Your task to perform on an android device: open a bookmark in the chrome app Image 0: 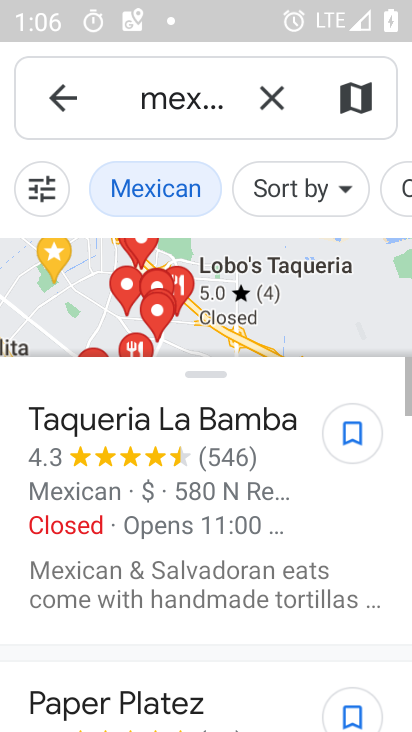
Step 0: press home button
Your task to perform on an android device: open a bookmark in the chrome app Image 1: 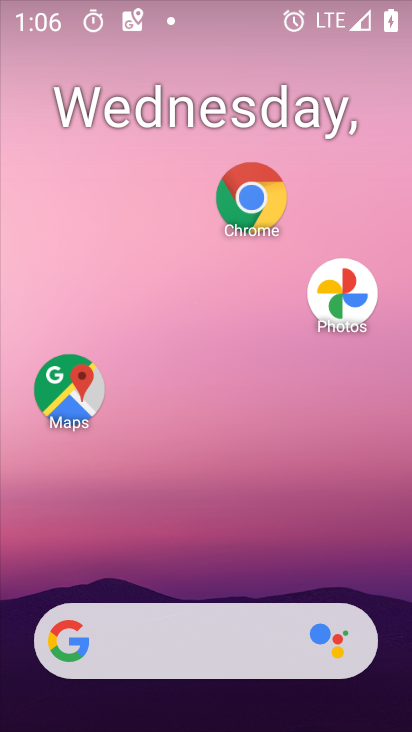
Step 1: drag from (233, 637) to (231, 147)
Your task to perform on an android device: open a bookmark in the chrome app Image 2: 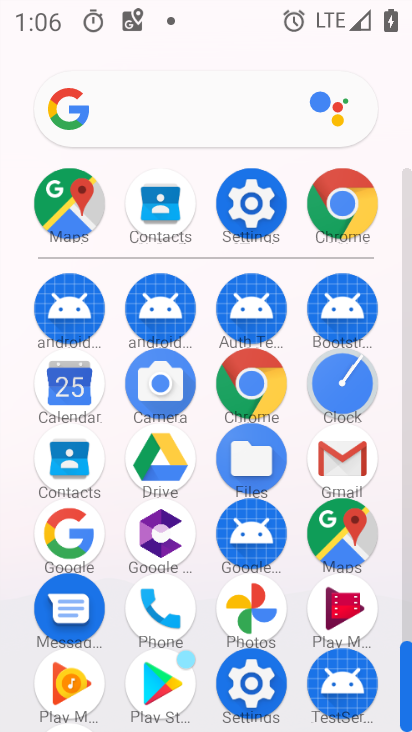
Step 2: click (354, 218)
Your task to perform on an android device: open a bookmark in the chrome app Image 3: 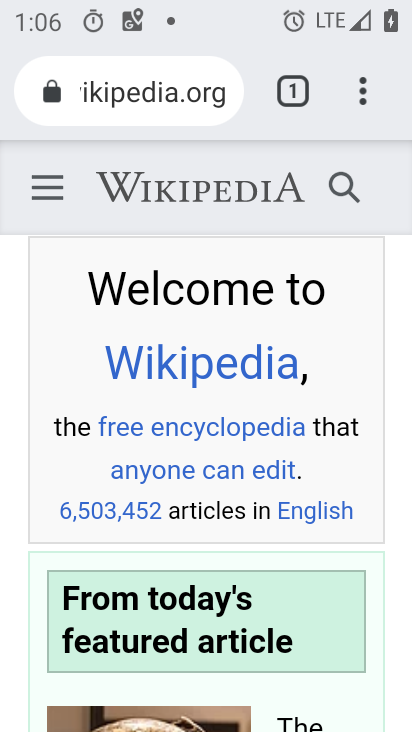
Step 3: click (380, 81)
Your task to perform on an android device: open a bookmark in the chrome app Image 4: 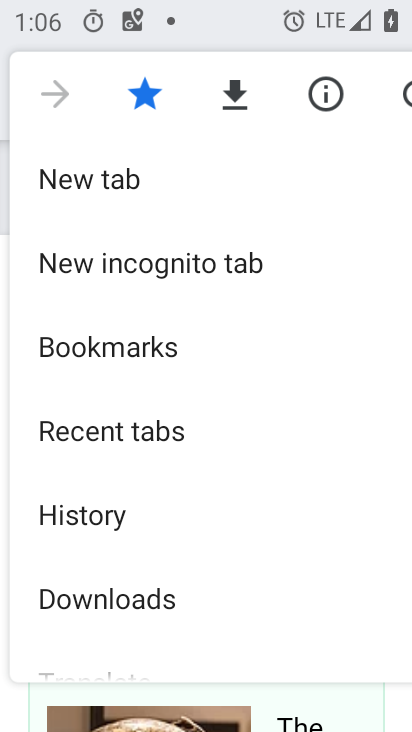
Step 4: click (128, 345)
Your task to perform on an android device: open a bookmark in the chrome app Image 5: 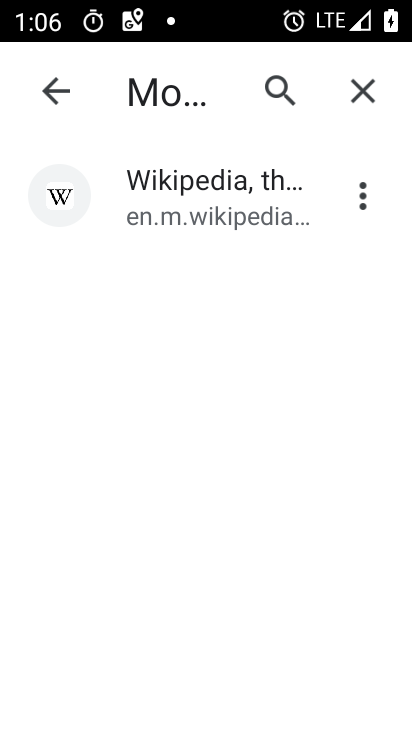
Step 5: click (204, 196)
Your task to perform on an android device: open a bookmark in the chrome app Image 6: 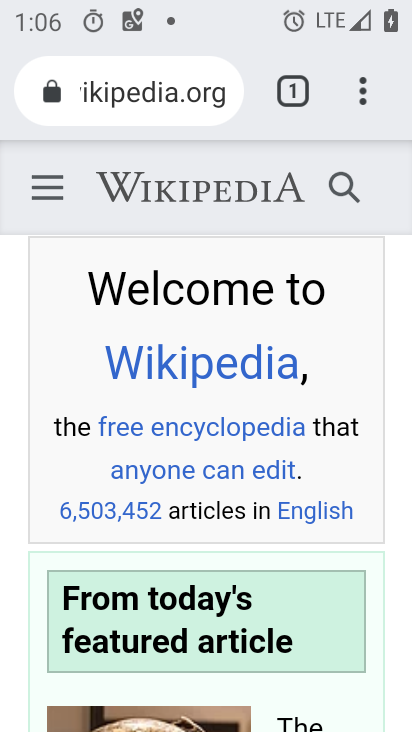
Step 6: task complete